Your task to perform on an android device: Do I have any events today? Image 0: 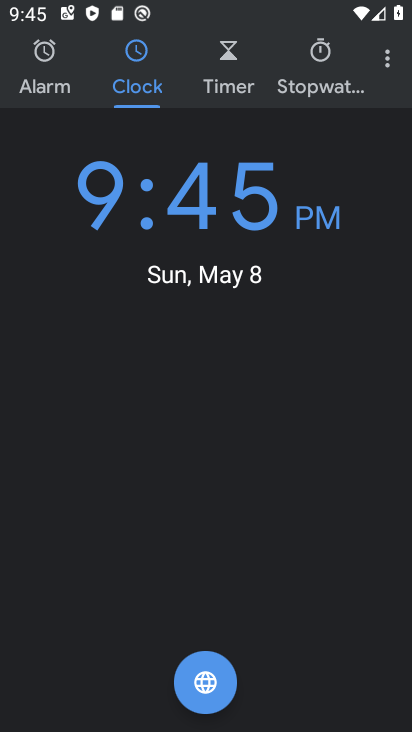
Step 0: press back button
Your task to perform on an android device: Do I have any events today? Image 1: 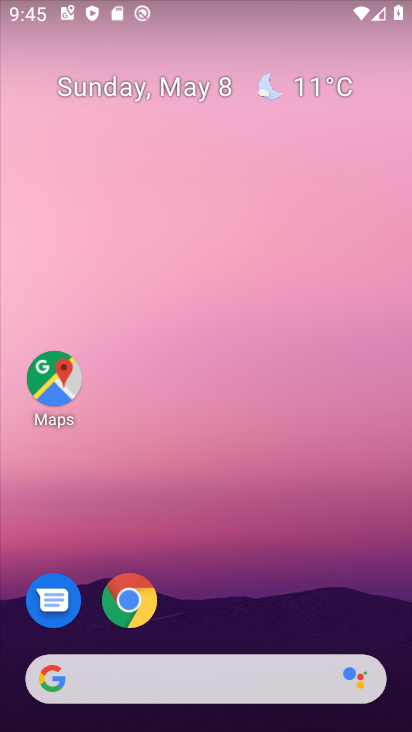
Step 1: drag from (259, 600) to (225, 25)
Your task to perform on an android device: Do I have any events today? Image 2: 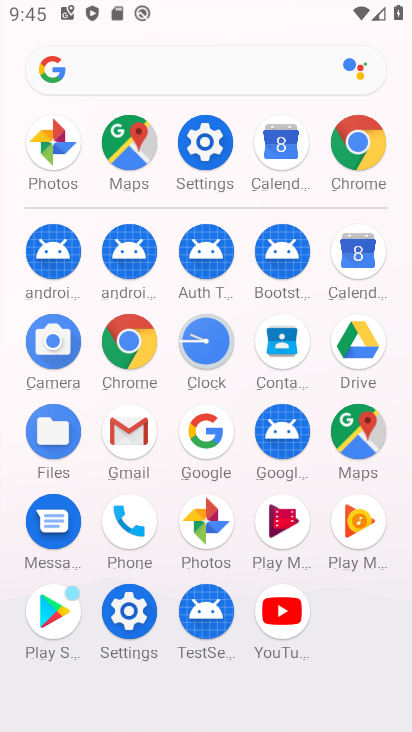
Step 2: click (356, 254)
Your task to perform on an android device: Do I have any events today? Image 3: 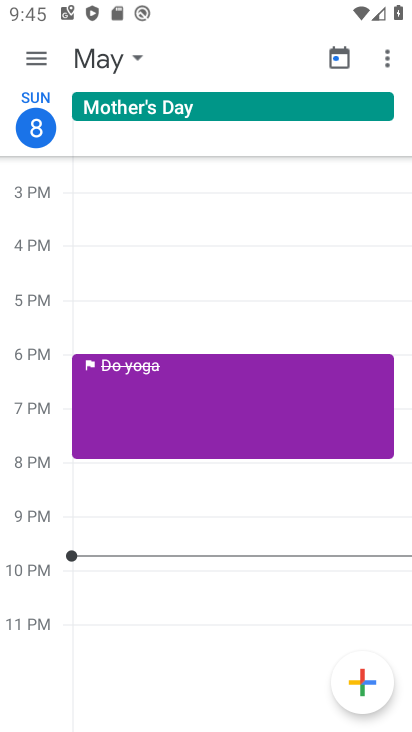
Step 3: task complete